Your task to perform on an android device: turn off javascript in the chrome app Image 0: 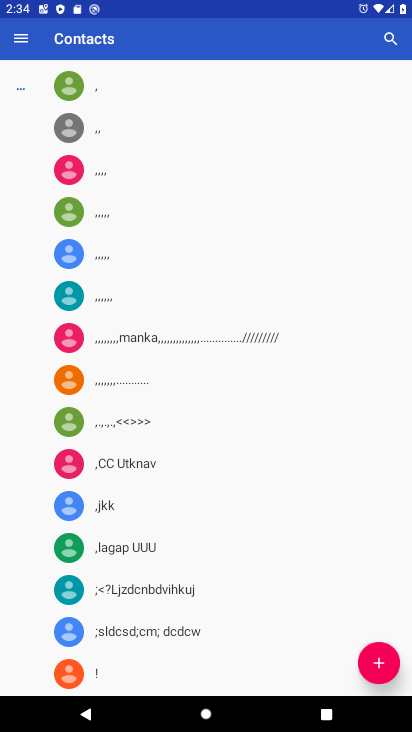
Step 0: press home button
Your task to perform on an android device: turn off javascript in the chrome app Image 1: 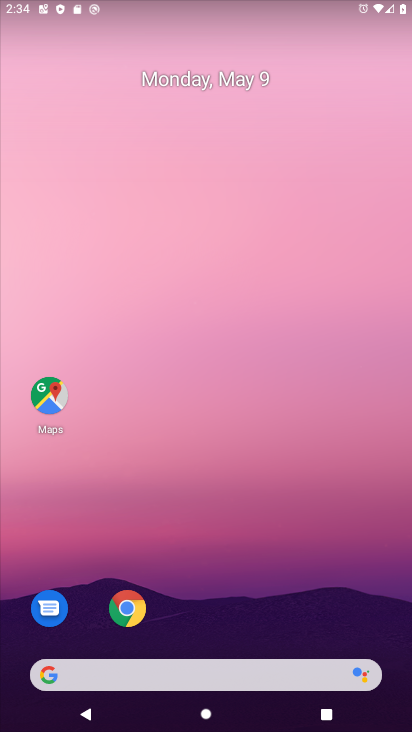
Step 1: click (132, 621)
Your task to perform on an android device: turn off javascript in the chrome app Image 2: 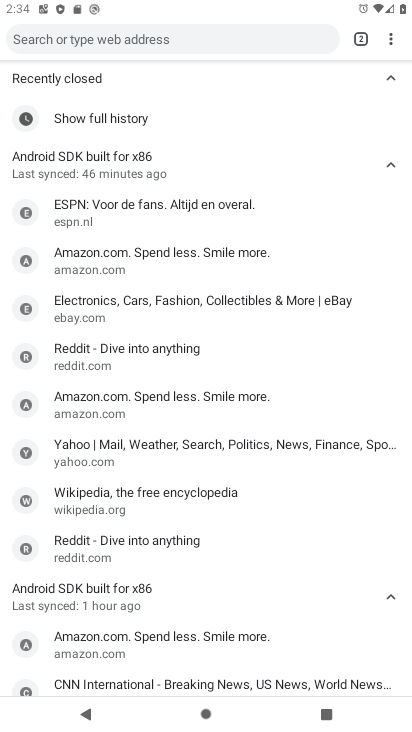
Step 2: click (394, 42)
Your task to perform on an android device: turn off javascript in the chrome app Image 3: 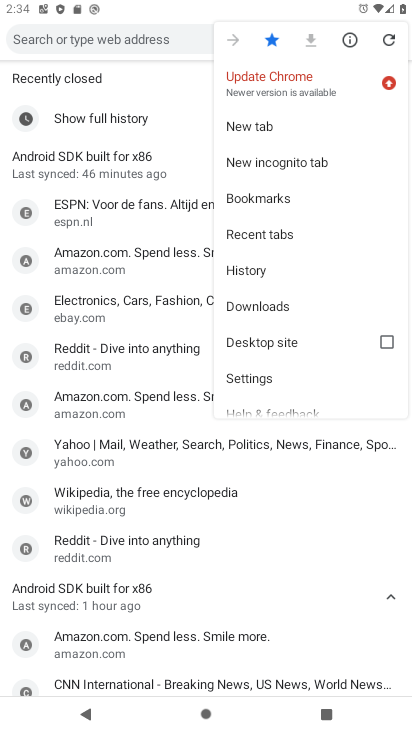
Step 3: click (301, 378)
Your task to perform on an android device: turn off javascript in the chrome app Image 4: 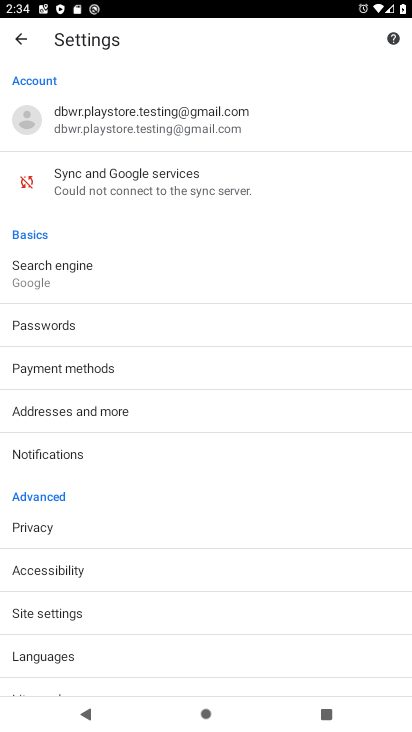
Step 4: click (157, 609)
Your task to perform on an android device: turn off javascript in the chrome app Image 5: 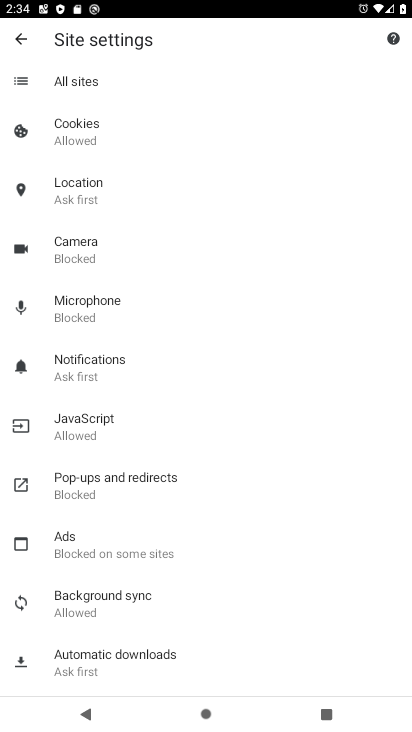
Step 5: click (98, 424)
Your task to perform on an android device: turn off javascript in the chrome app Image 6: 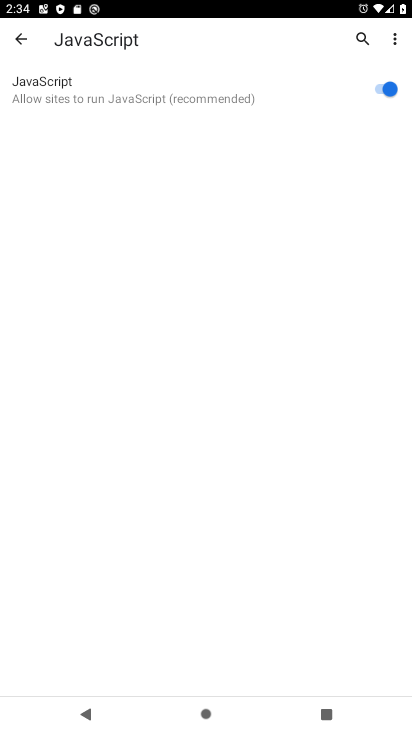
Step 6: click (381, 89)
Your task to perform on an android device: turn off javascript in the chrome app Image 7: 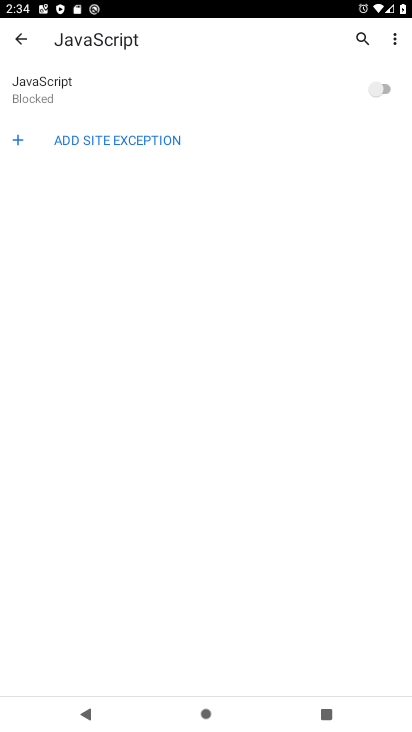
Step 7: task complete